Your task to perform on an android device: What's on my calendar tomorrow? Image 0: 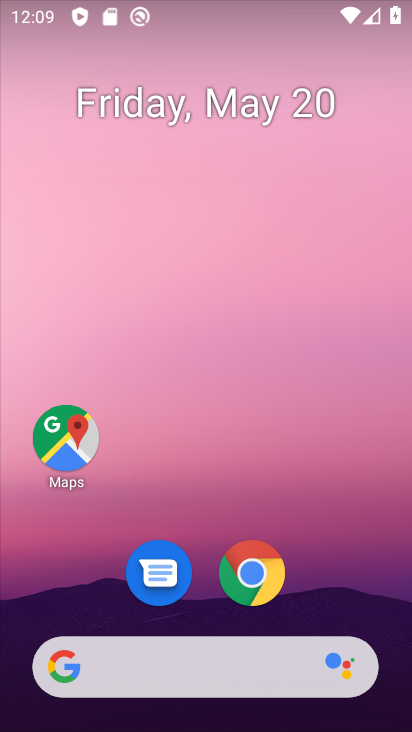
Step 0: drag from (324, 569) to (246, 41)
Your task to perform on an android device: What's on my calendar tomorrow? Image 1: 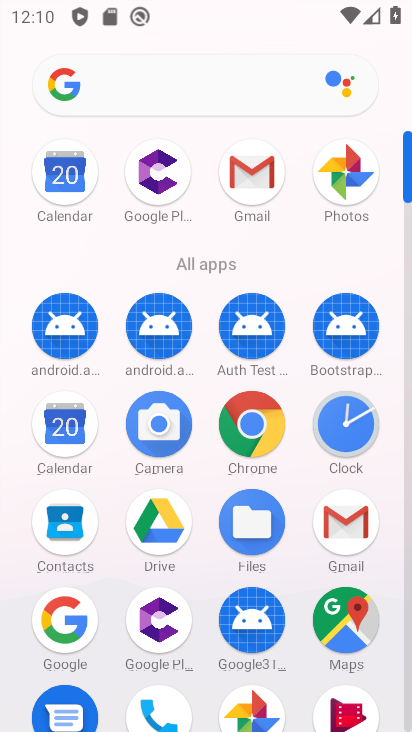
Step 1: click (58, 430)
Your task to perform on an android device: What's on my calendar tomorrow? Image 2: 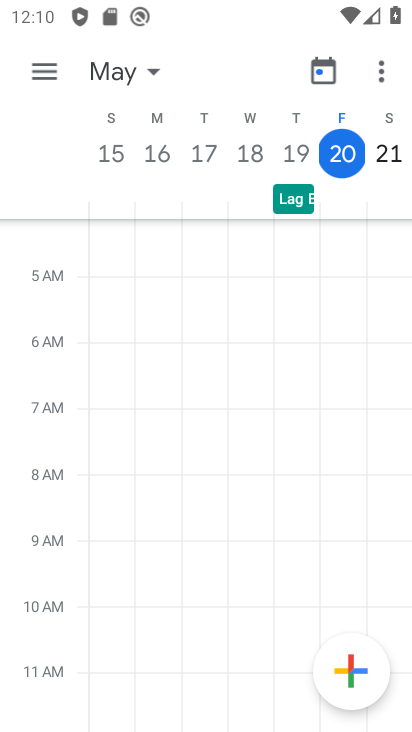
Step 2: click (44, 68)
Your task to perform on an android device: What's on my calendar tomorrow? Image 3: 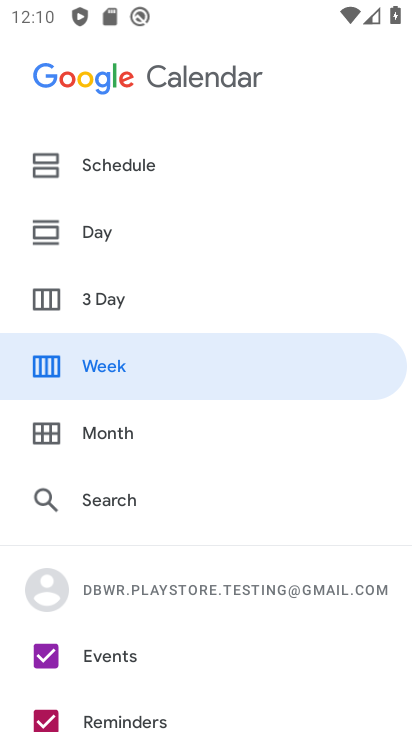
Step 3: click (101, 227)
Your task to perform on an android device: What's on my calendar tomorrow? Image 4: 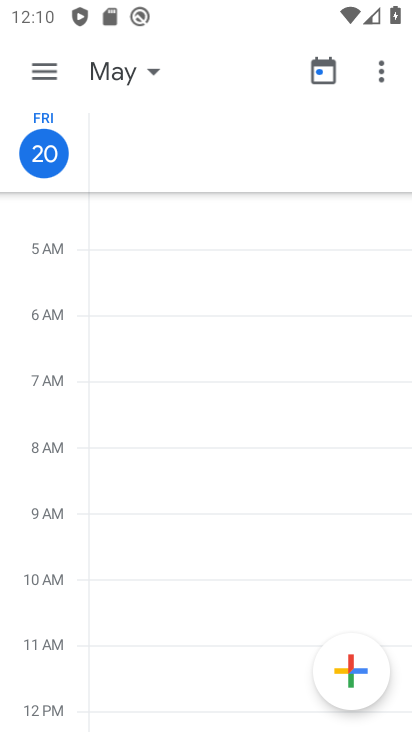
Step 4: click (153, 65)
Your task to perform on an android device: What's on my calendar tomorrow? Image 5: 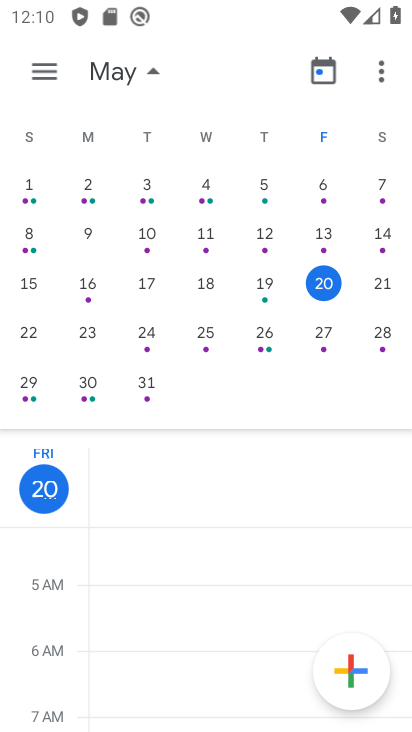
Step 5: click (381, 279)
Your task to perform on an android device: What's on my calendar tomorrow? Image 6: 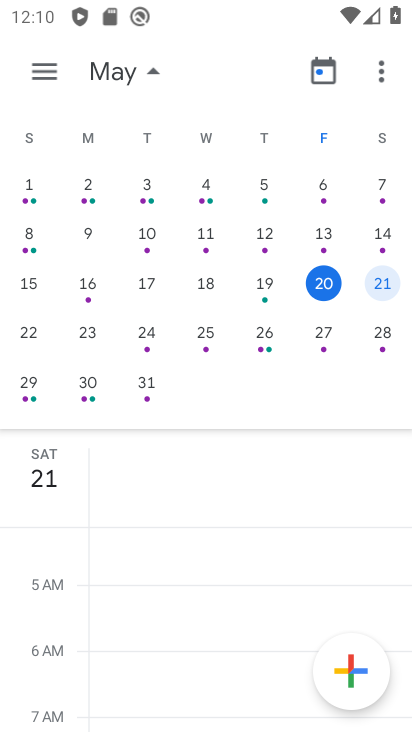
Step 6: task complete